Your task to perform on an android device: set an alarm Image 0: 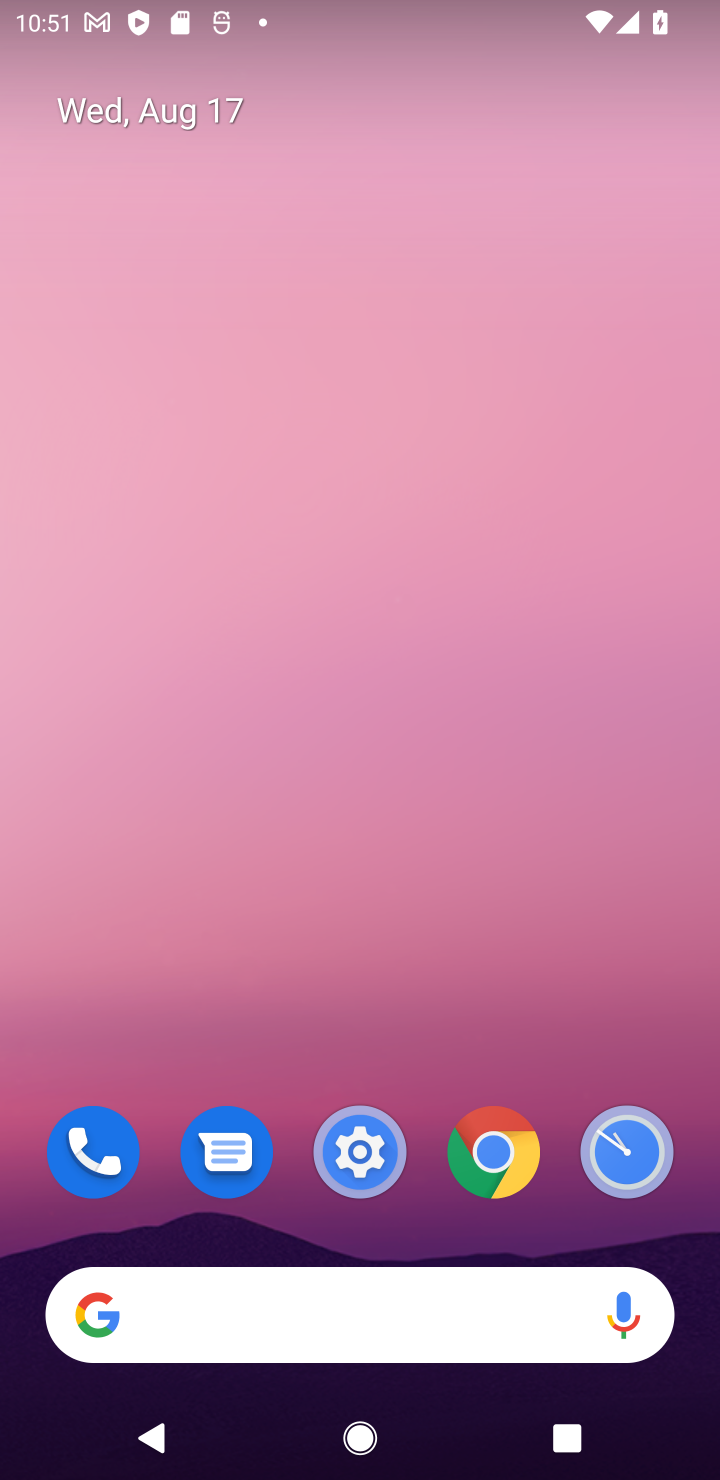
Step 0: drag from (574, 1127) to (156, 148)
Your task to perform on an android device: set an alarm Image 1: 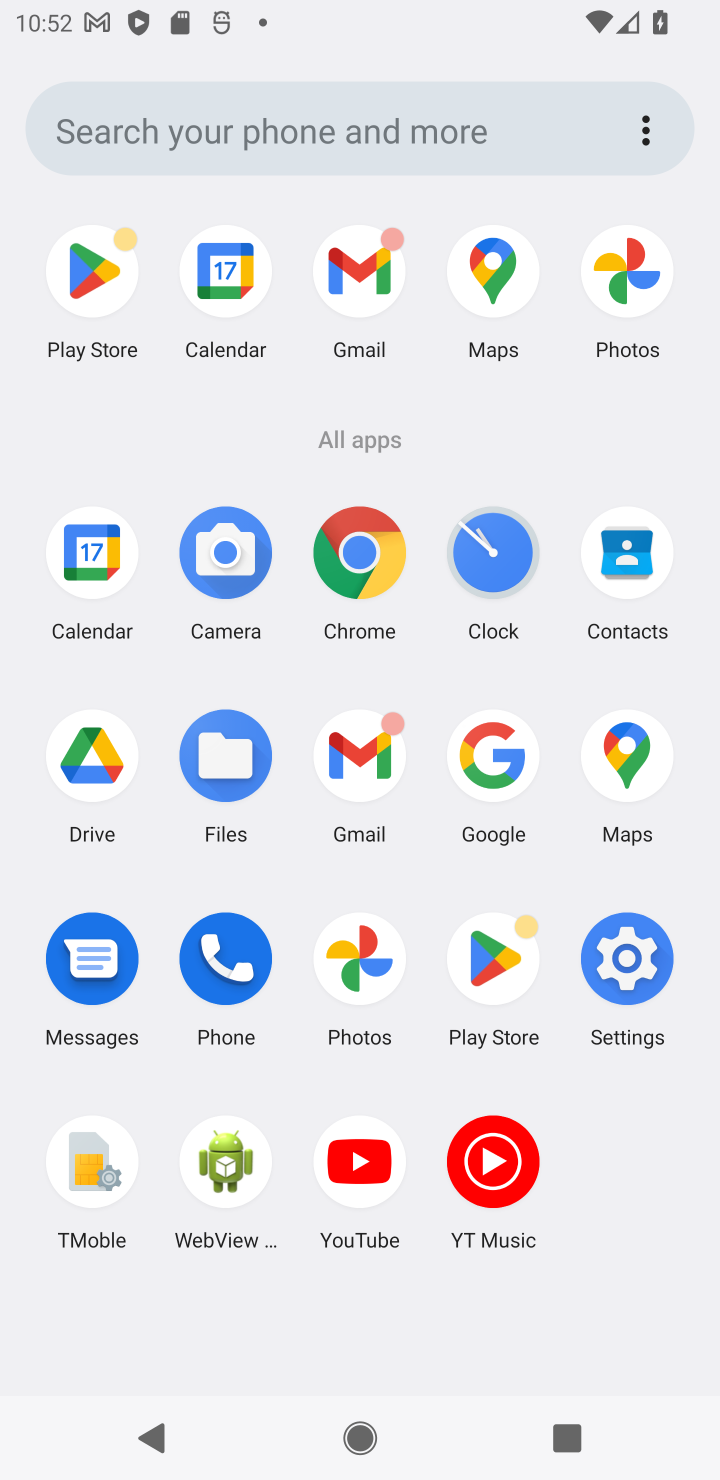
Step 1: click (486, 552)
Your task to perform on an android device: set an alarm Image 2: 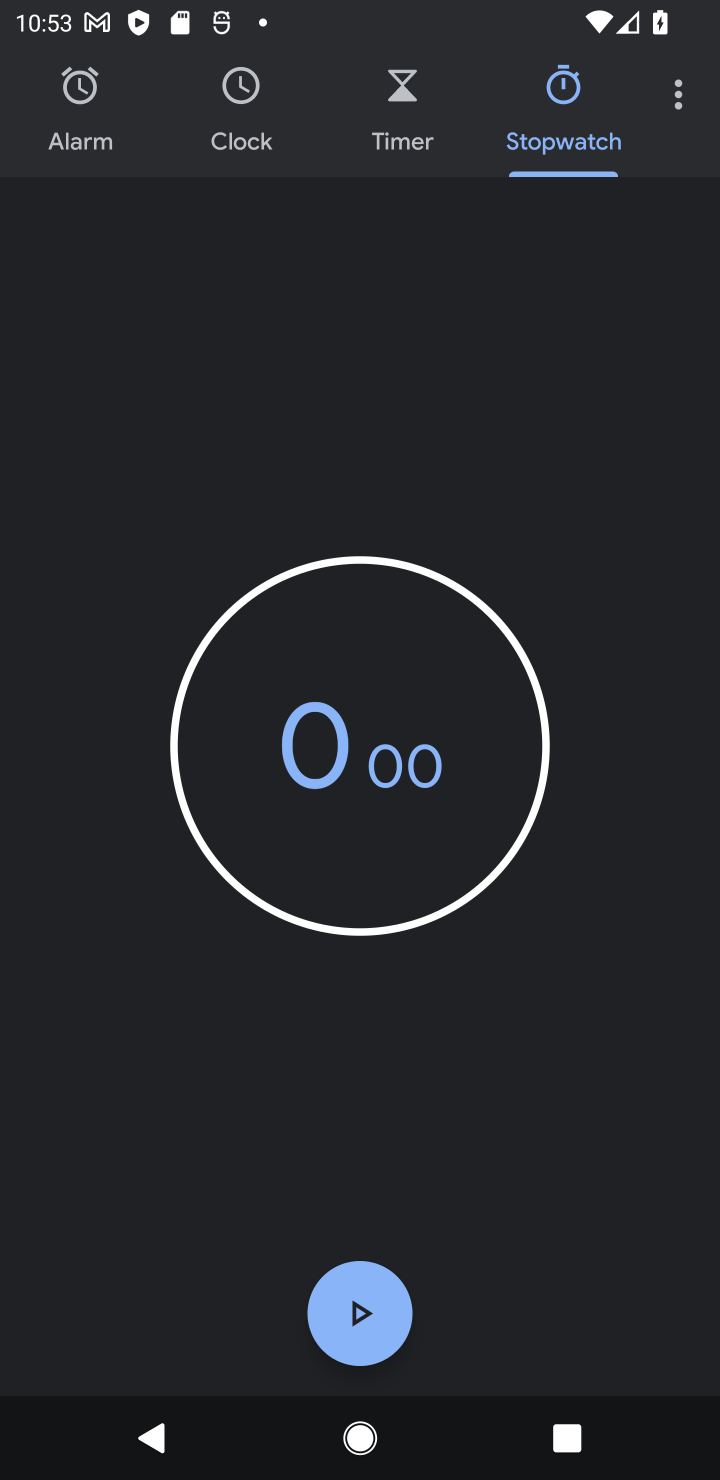
Step 2: click (88, 133)
Your task to perform on an android device: set an alarm Image 3: 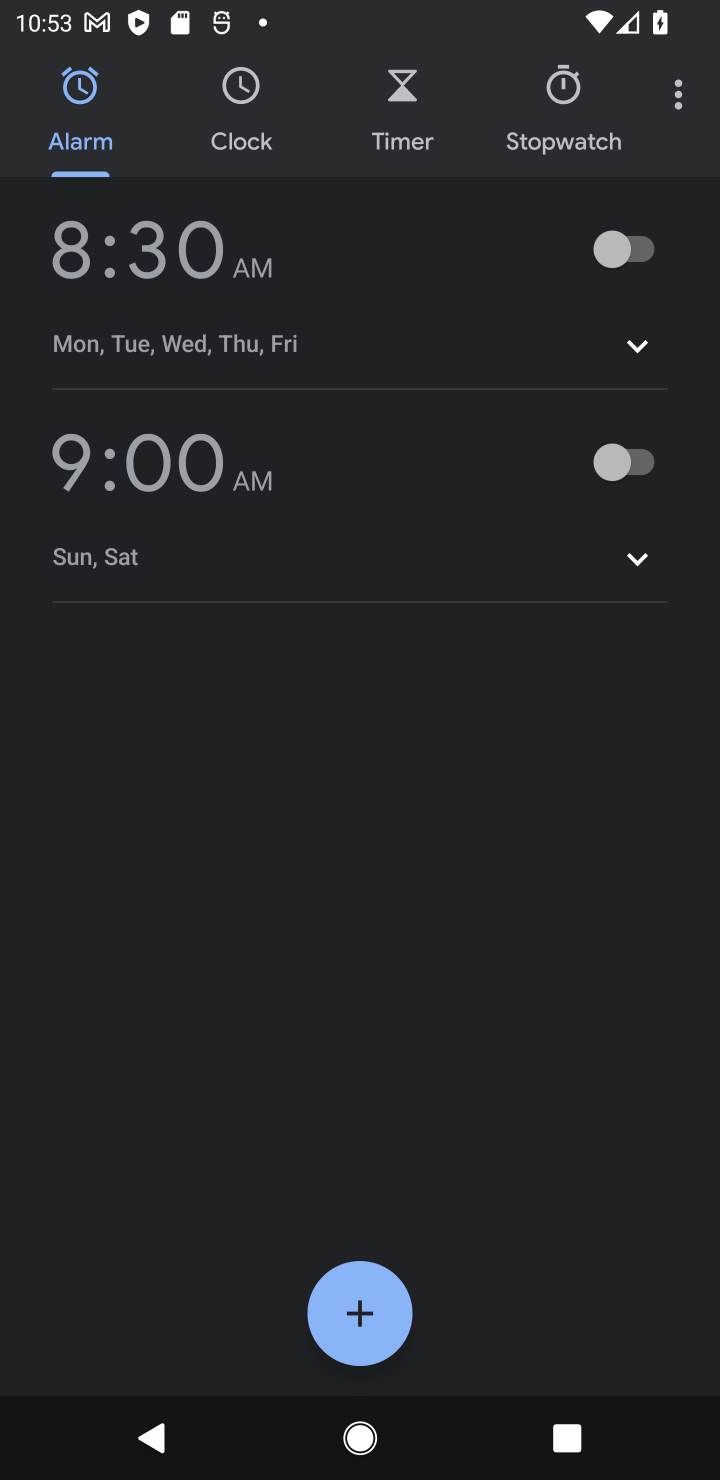
Step 3: click (642, 251)
Your task to perform on an android device: set an alarm Image 4: 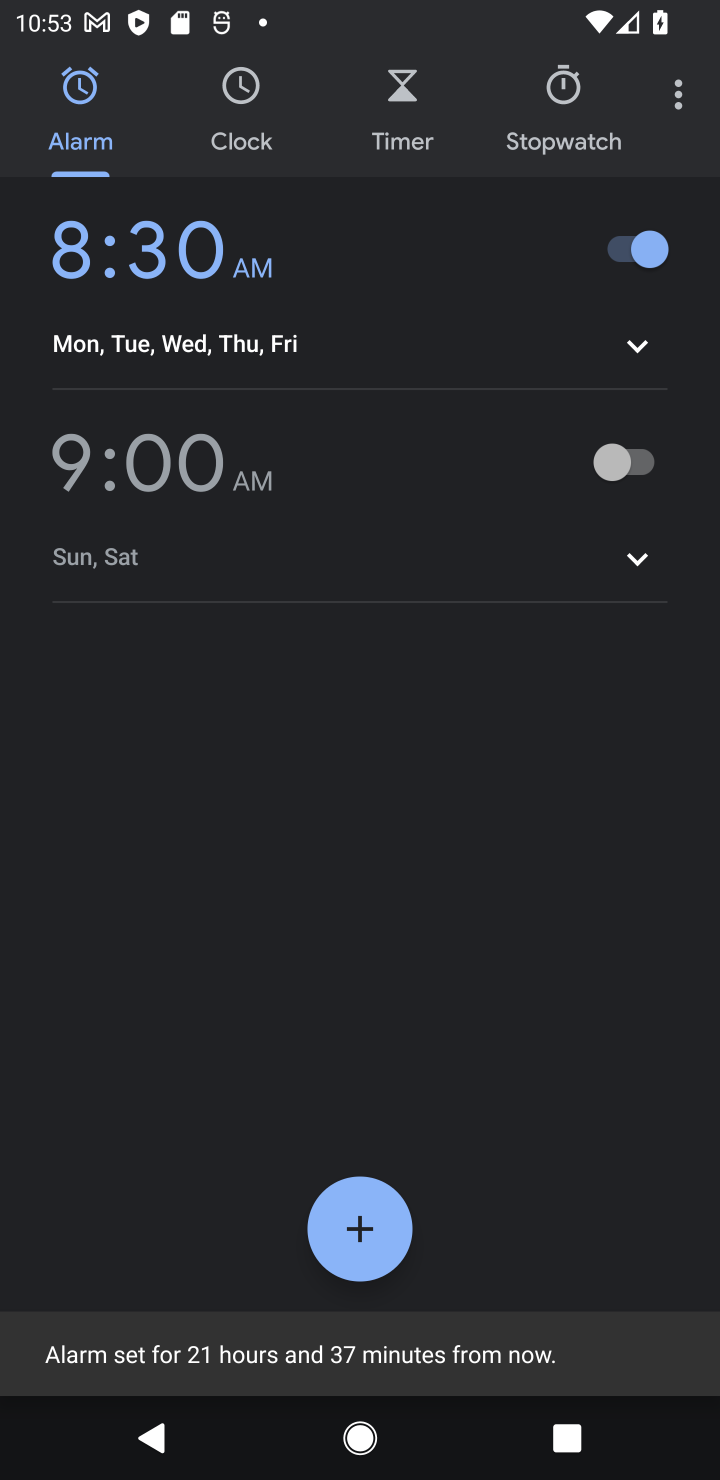
Step 4: task complete